Your task to perform on an android device: toggle airplane mode Image 0: 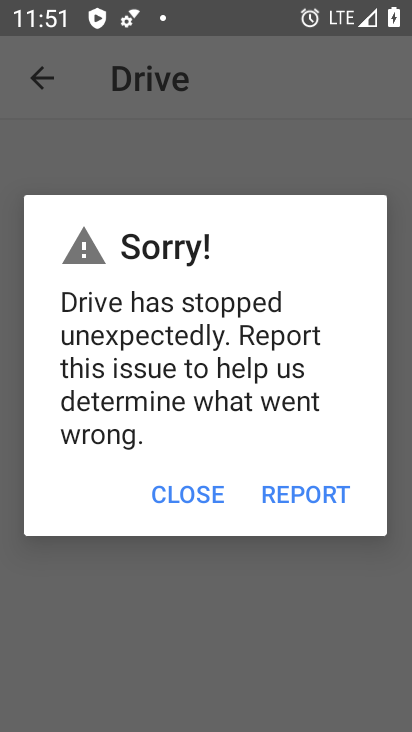
Step 0: press back button
Your task to perform on an android device: toggle airplane mode Image 1: 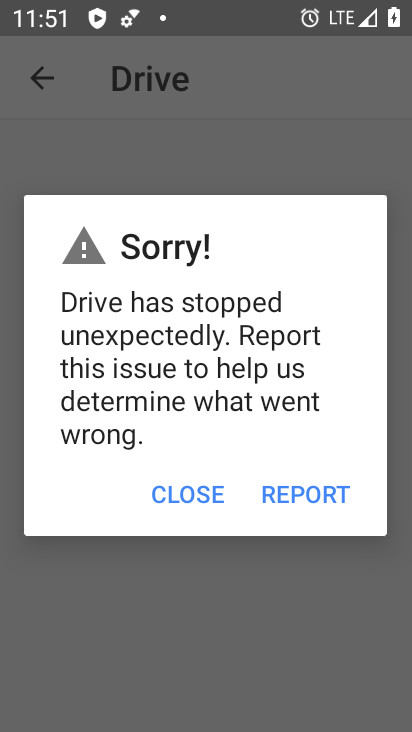
Step 1: click (165, 493)
Your task to perform on an android device: toggle airplane mode Image 2: 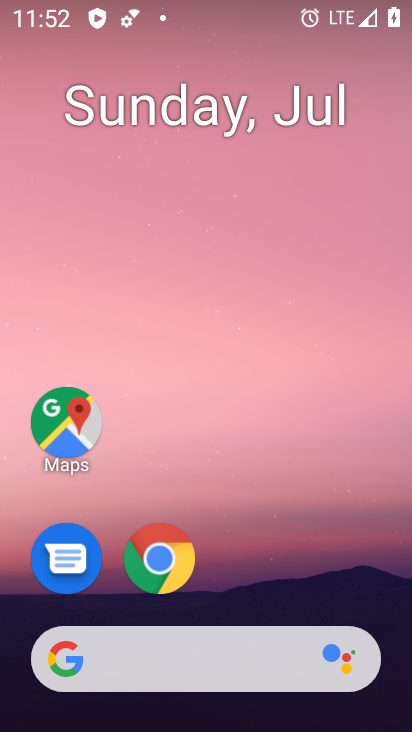
Step 2: drag from (360, 5) to (278, 536)
Your task to perform on an android device: toggle airplane mode Image 3: 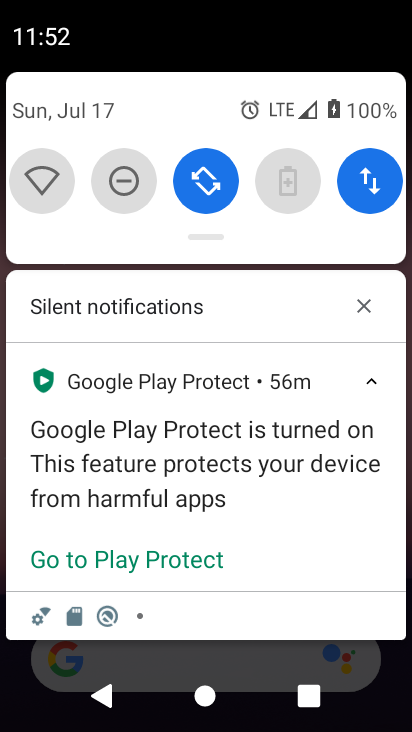
Step 3: drag from (191, 222) to (202, 724)
Your task to perform on an android device: toggle airplane mode Image 4: 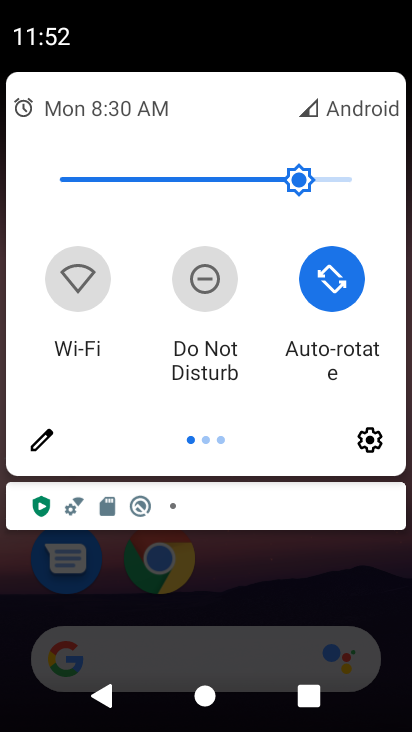
Step 4: drag from (385, 291) to (2, 276)
Your task to perform on an android device: toggle airplane mode Image 5: 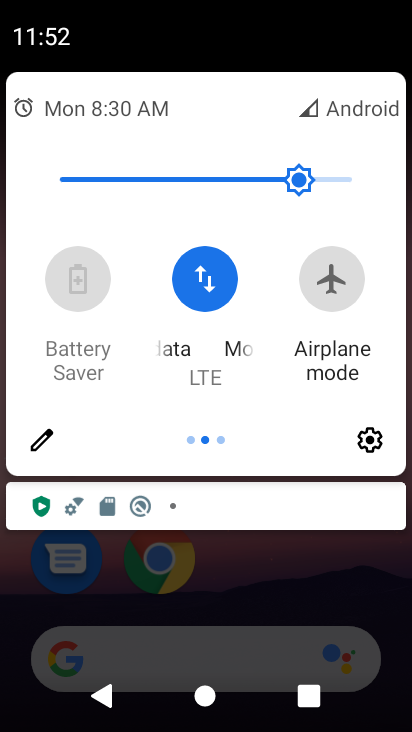
Step 5: click (321, 272)
Your task to perform on an android device: toggle airplane mode Image 6: 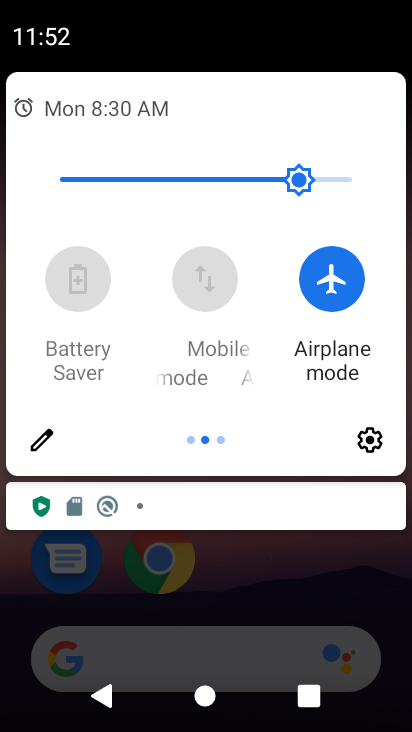
Step 6: task complete